Your task to perform on an android device: Go to accessibility settings Image 0: 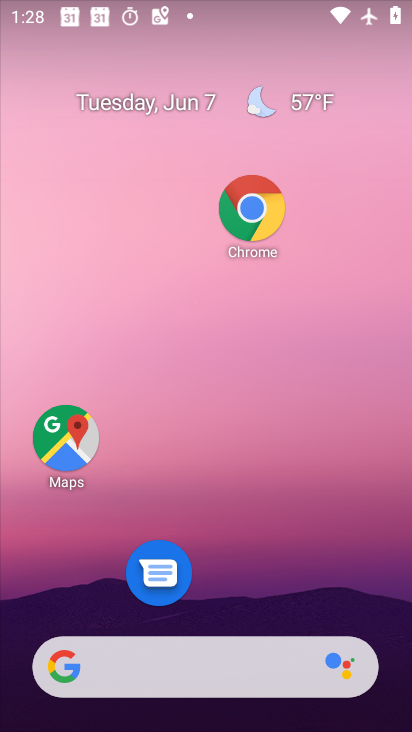
Step 0: drag from (224, 600) to (195, 151)
Your task to perform on an android device: Go to accessibility settings Image 1: 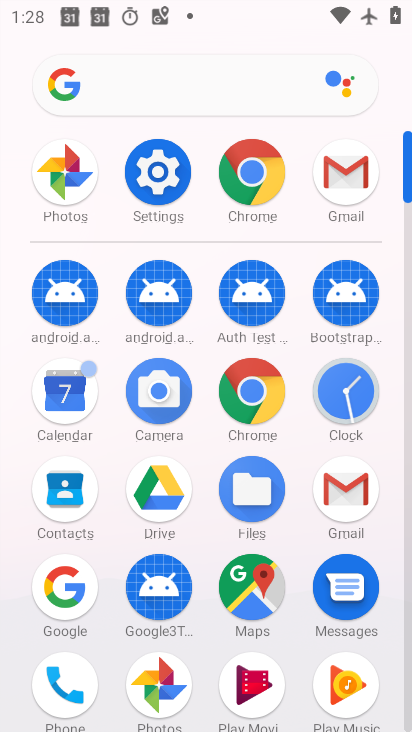
Step 1: click (174, 151)
Your task to perform on an android device: Go to accessibility settings Image 2: 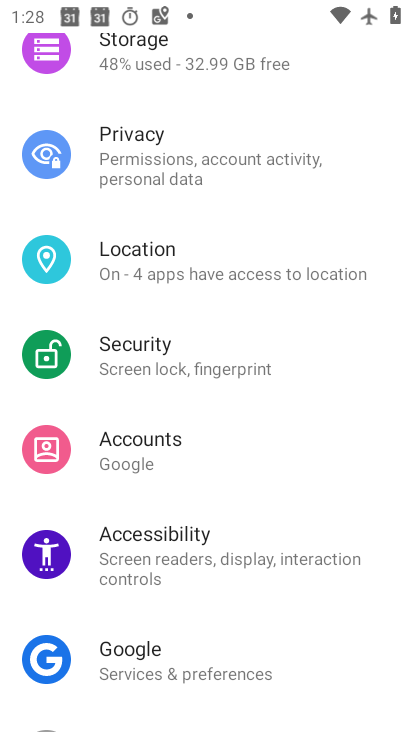
Step 2: click (165, 555)
Your task to perform on an android device: Go to accessibility settings Image 3: 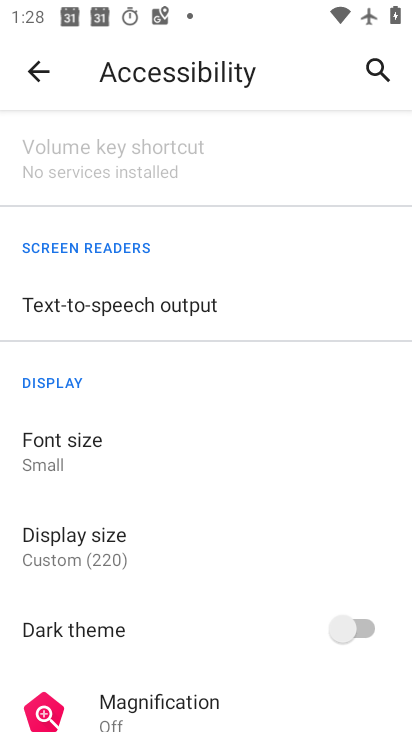
Step 3: task complete